Your task to perform on an android device: turn off location history Image 0: 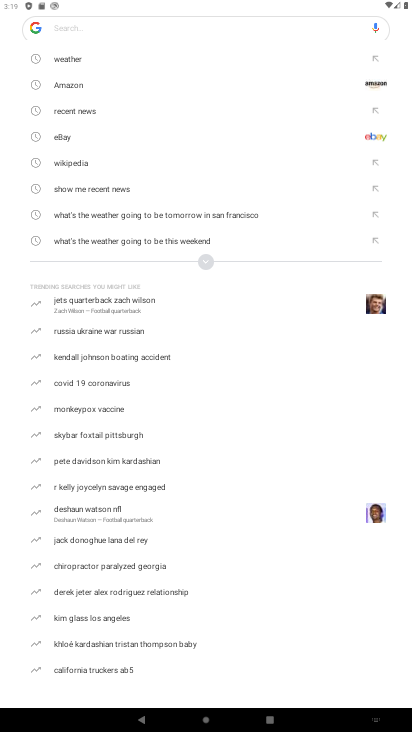
Step 0: press home button
Your task to perform on an android device: turn off location history Image 1: 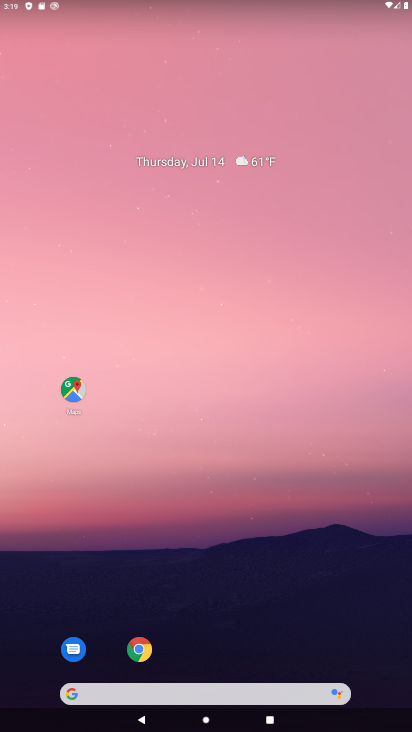
Step 1: drag from (186, 674) to (92, 62)
Your task to perform on an android device: turn off location history Image 2: 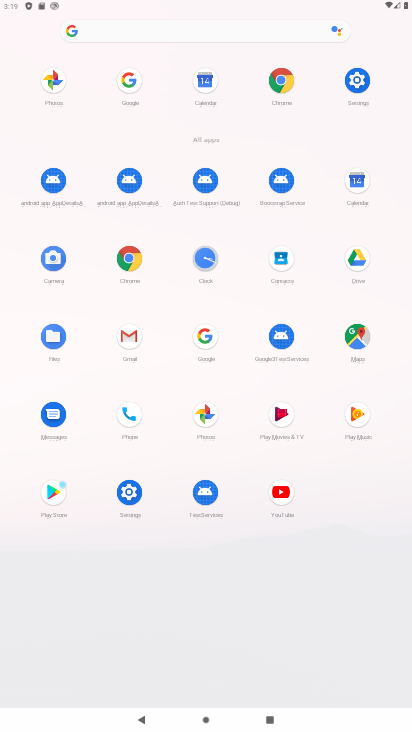
Step 2: click (355, 80)
Your task to perform on an android device: turn off location history Image 3: 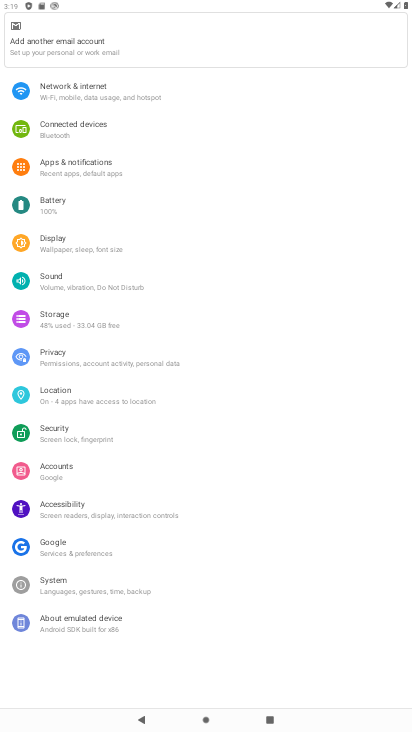
Step 3: click (46, 387)
Your task to perform on an android device: turn off location history Image 4: 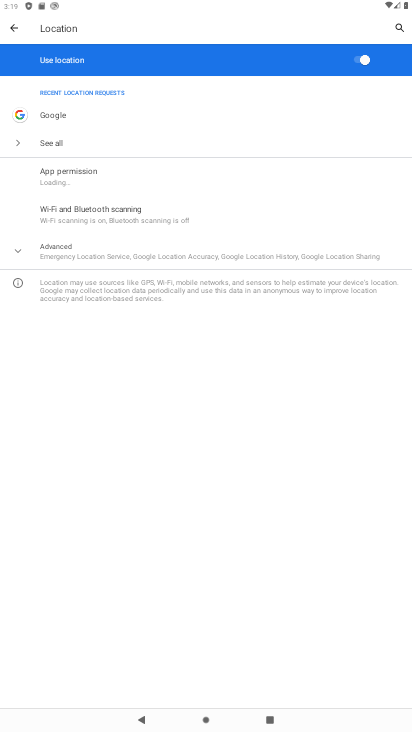
Step 4: click (98, 246)
Your task to perform on an android device: turn off location history Image 5: 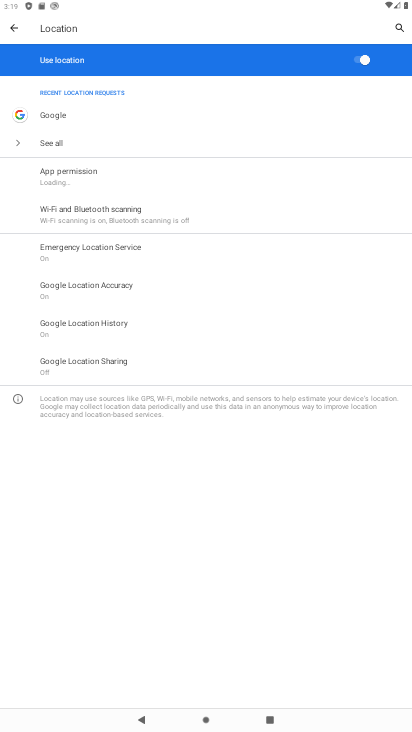
Step 5: click (105, 319)
Your task to perform on an android device: turn off location history Image 6: 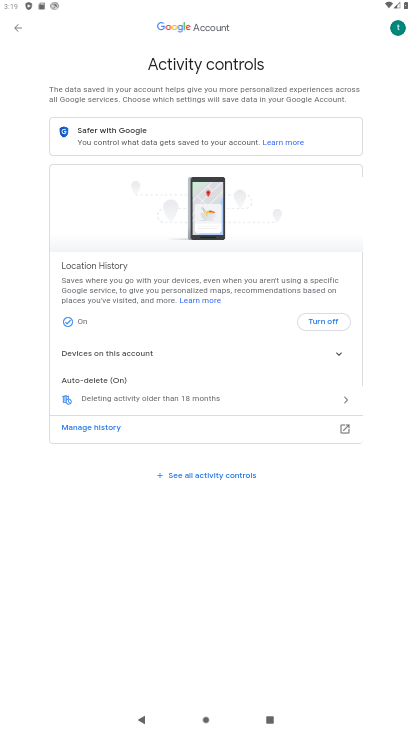
Step 6: click (311, 318)
Your task to perform on an android device: turn off location history Image 7: 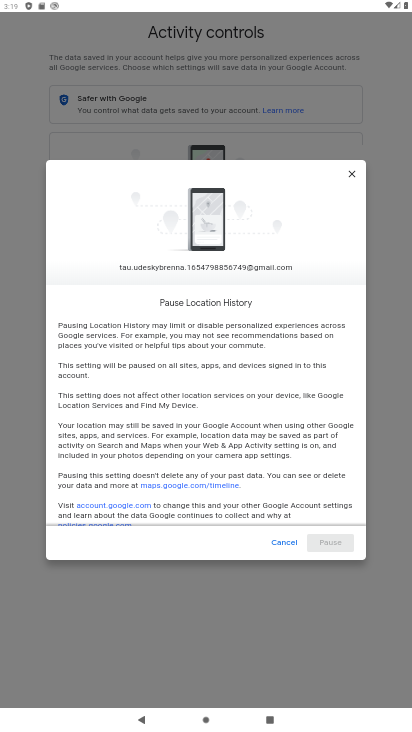
Step 7: drag from (327, 506) to (286, 156)
Your task to perform on an android device: turn off location history Image 8: 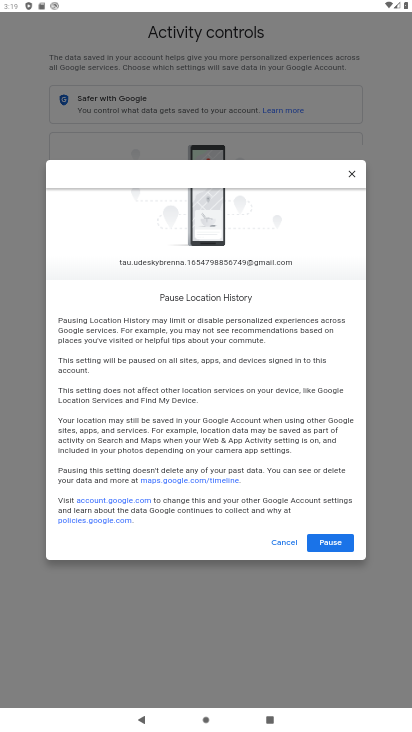
Step 8: click (324, 547)
Your task to perform on an android device: turn off location history Image 9: 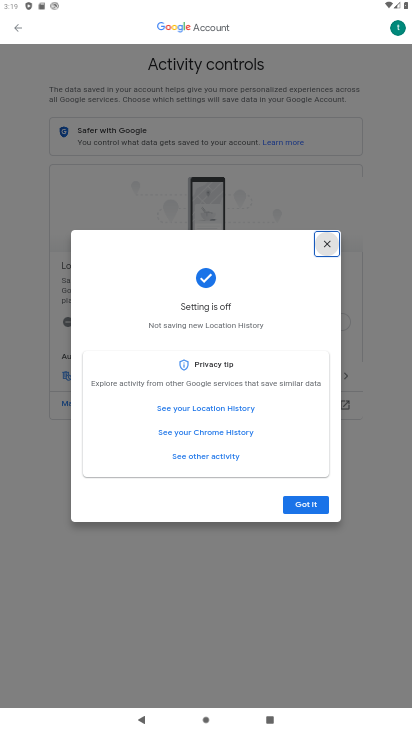
Step 9: click (307, 499)
Your task to perform on an android device: turn off location history Image 10: 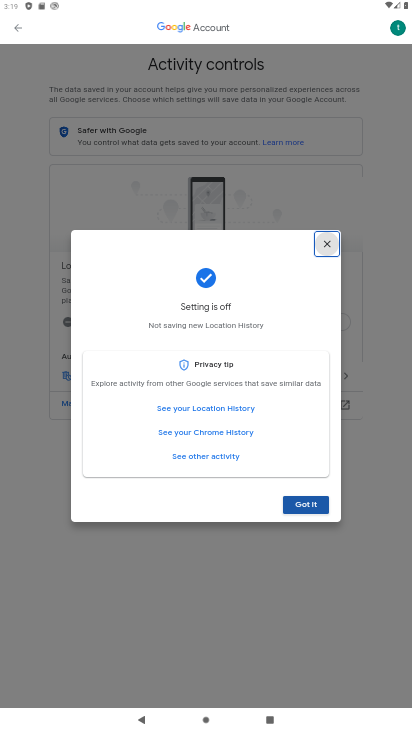
Step 10: task complete